Your task to perform on an android device: Show me productivity apps on the Play Store Image 0: 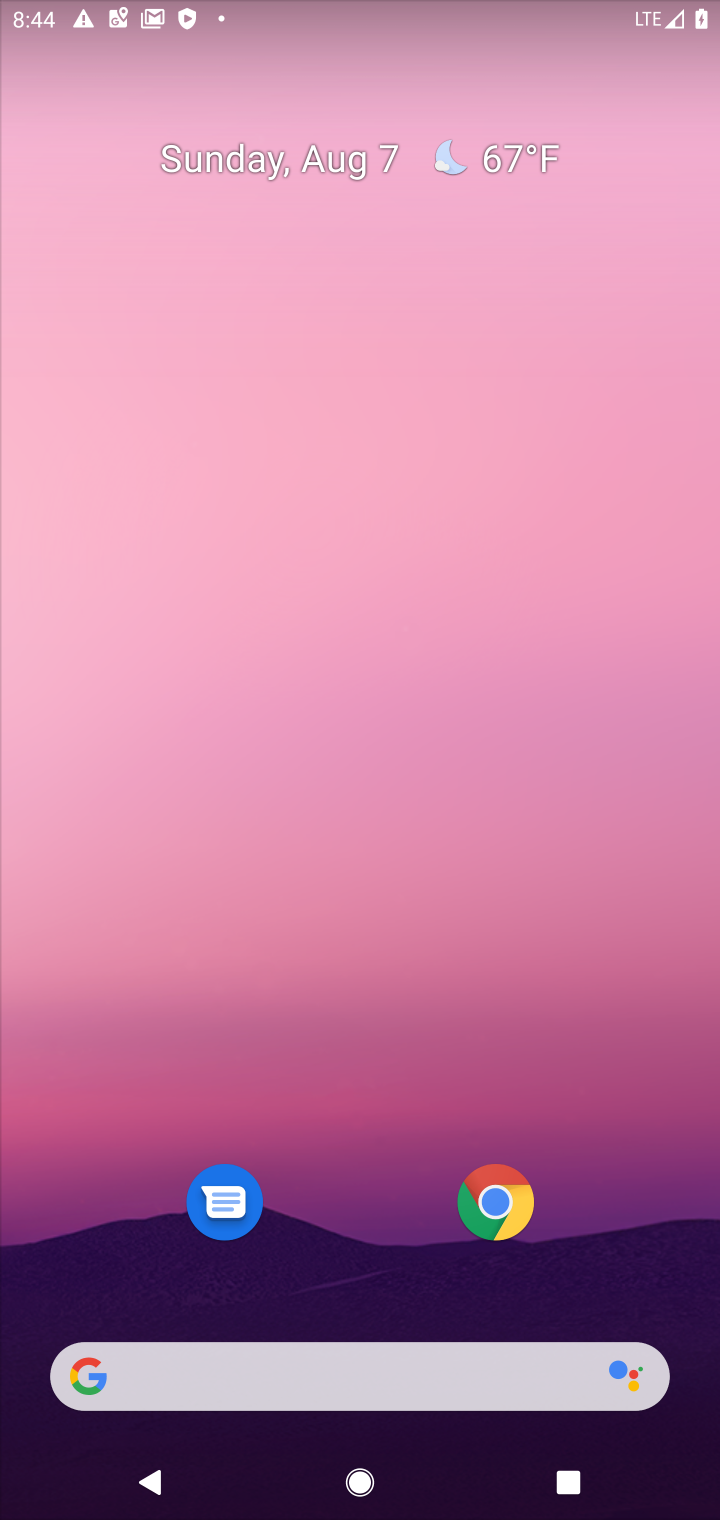
Step 0: drag from (351, 1222) to (370, 0)
Your task to perform on an android device: Show me productivity apps on the Play Store Image 1: 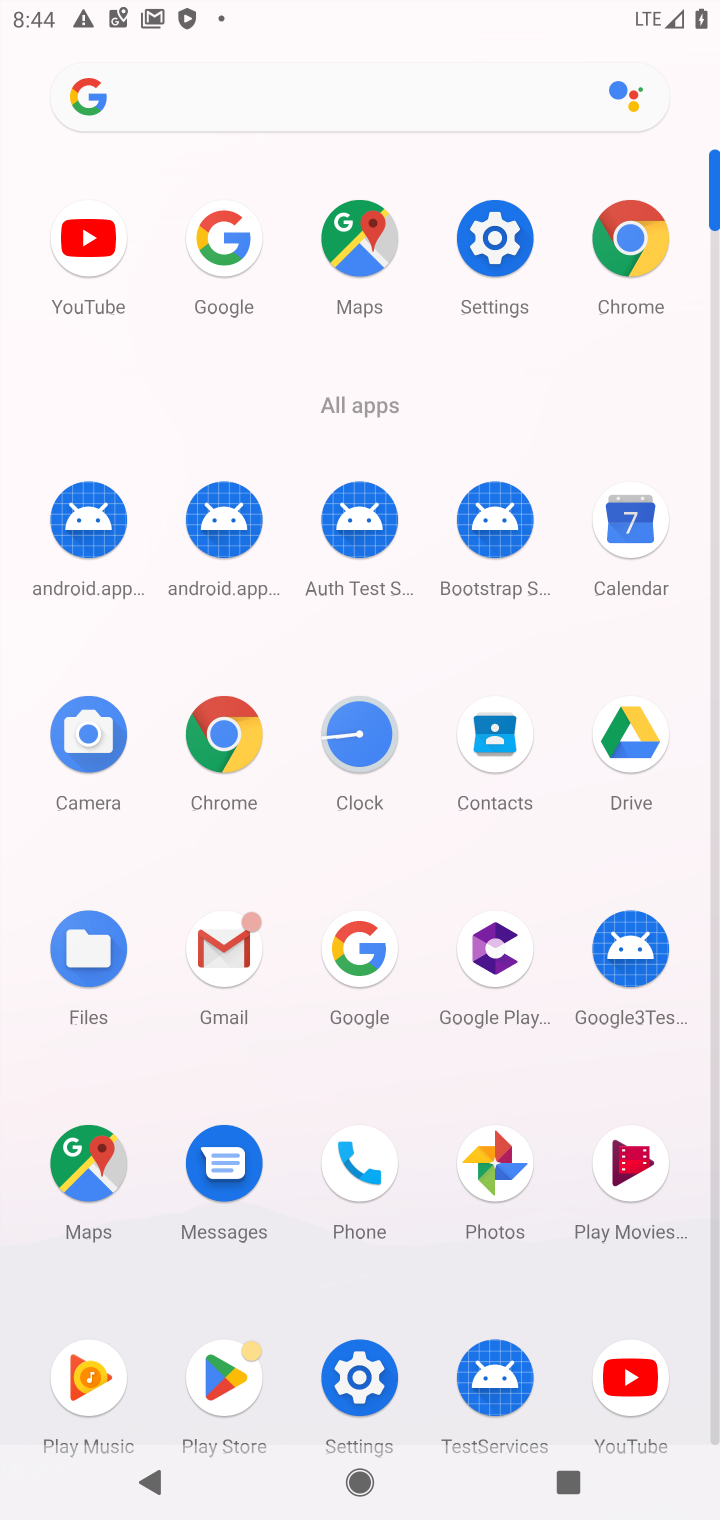
Step 1: click (190, 1369)
Your task to perform on an android device: Show me productivity apps on the Play Store Image 2: 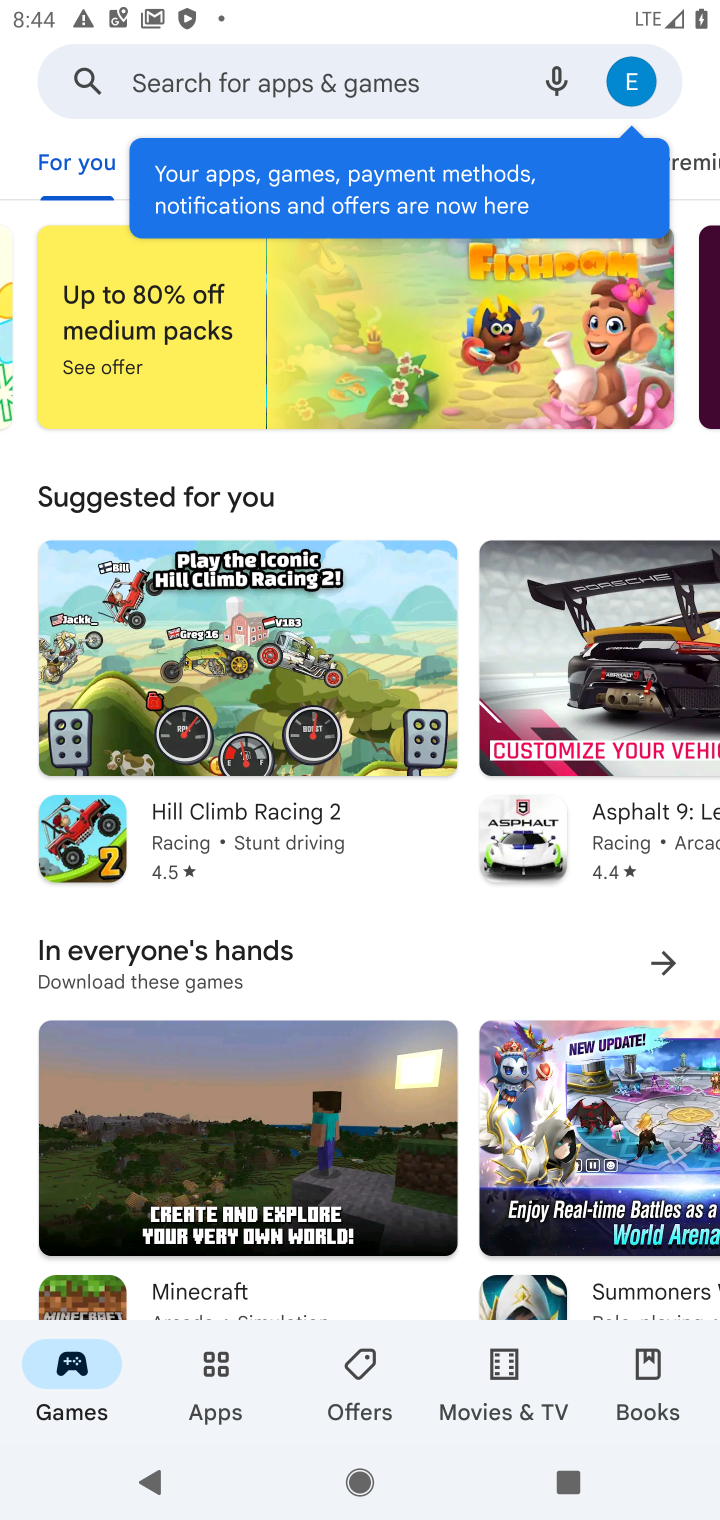
Step 2: click (205, 1392)
Your task to perform on an android device: Show me productivity apps on the Play Store Image 3: 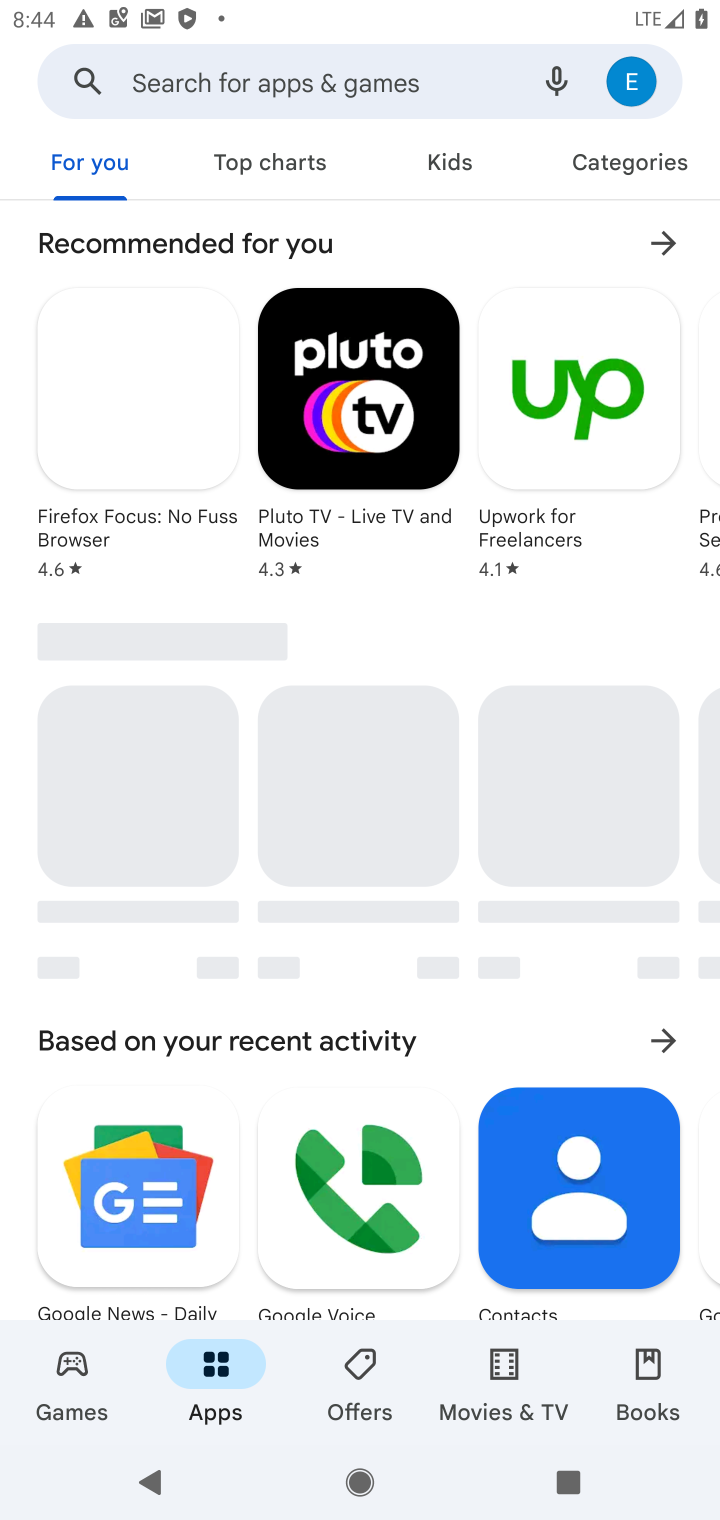
Step 3: click (640, 169)
Your task to perform on an android device: Show me productivity apps on the Play Store Image 4: 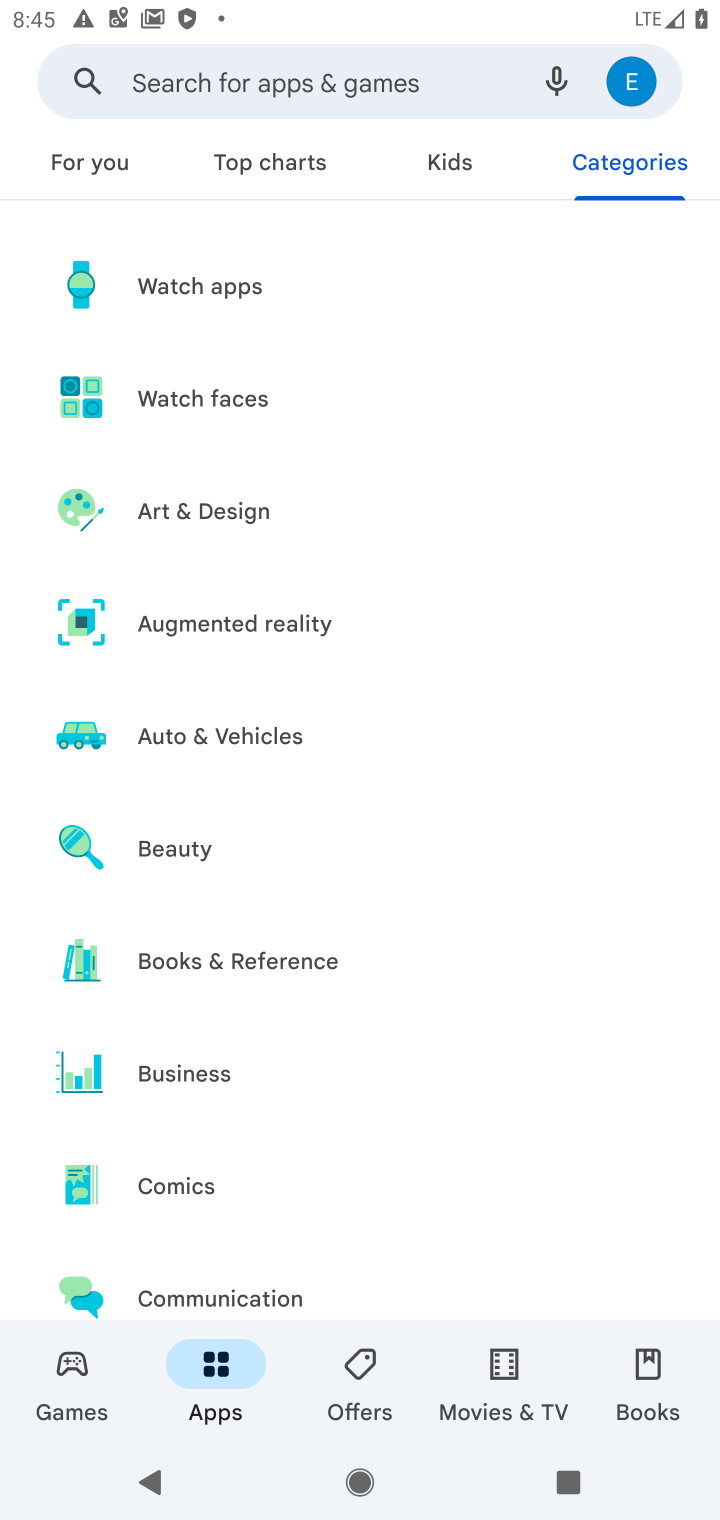
Step 4: drag from (362, 1272) to (390, 522)
Your task to perform on an android device: Show me productivity apps on the Play Store Image 5: 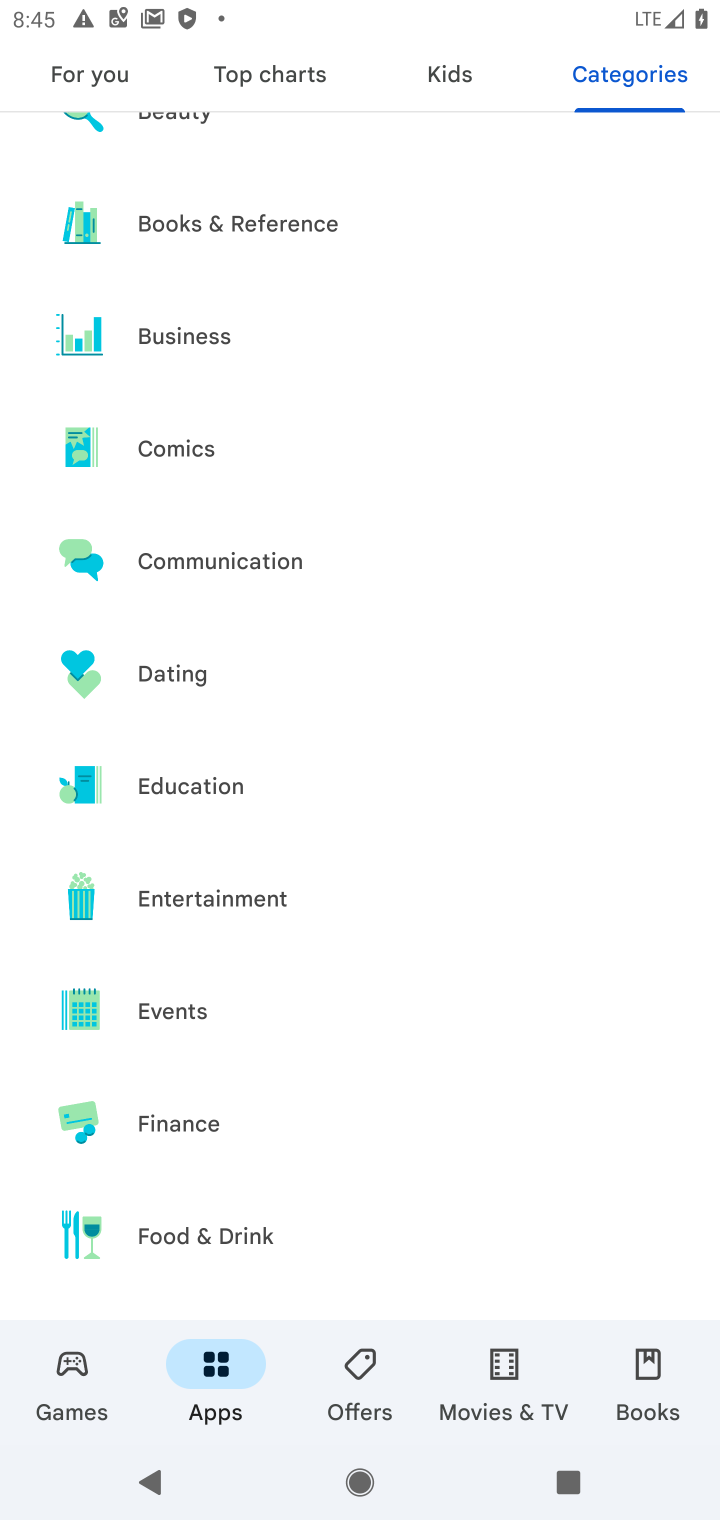
Step 5: drag from (349, 1204) to (291, 311)
Your task to perform on an android device: Show me productivity apps on the Play Store Image 6: 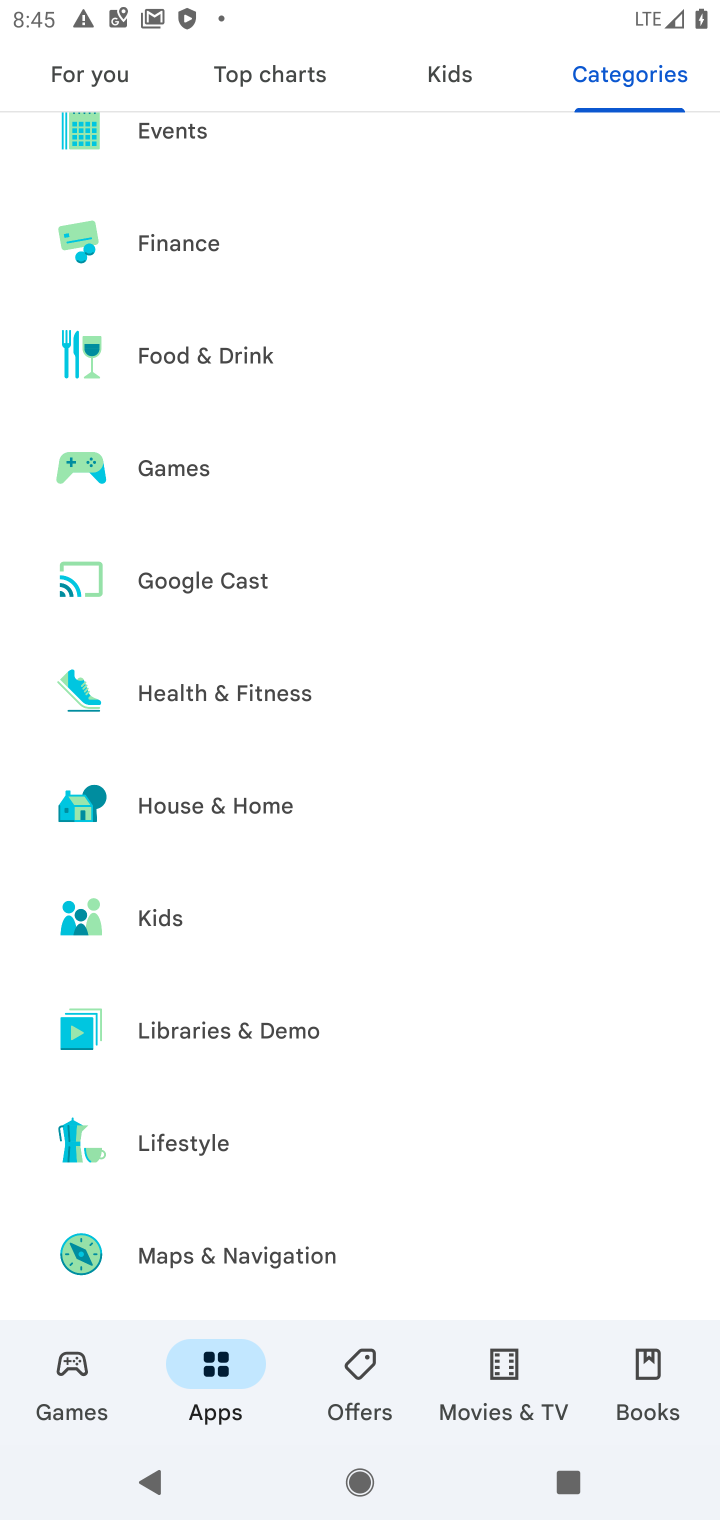
Step 6: drag from (267, 1173) to (267, 279)
Your task to perform on an android device: Show me productivity apps on the Play Store Image 7: 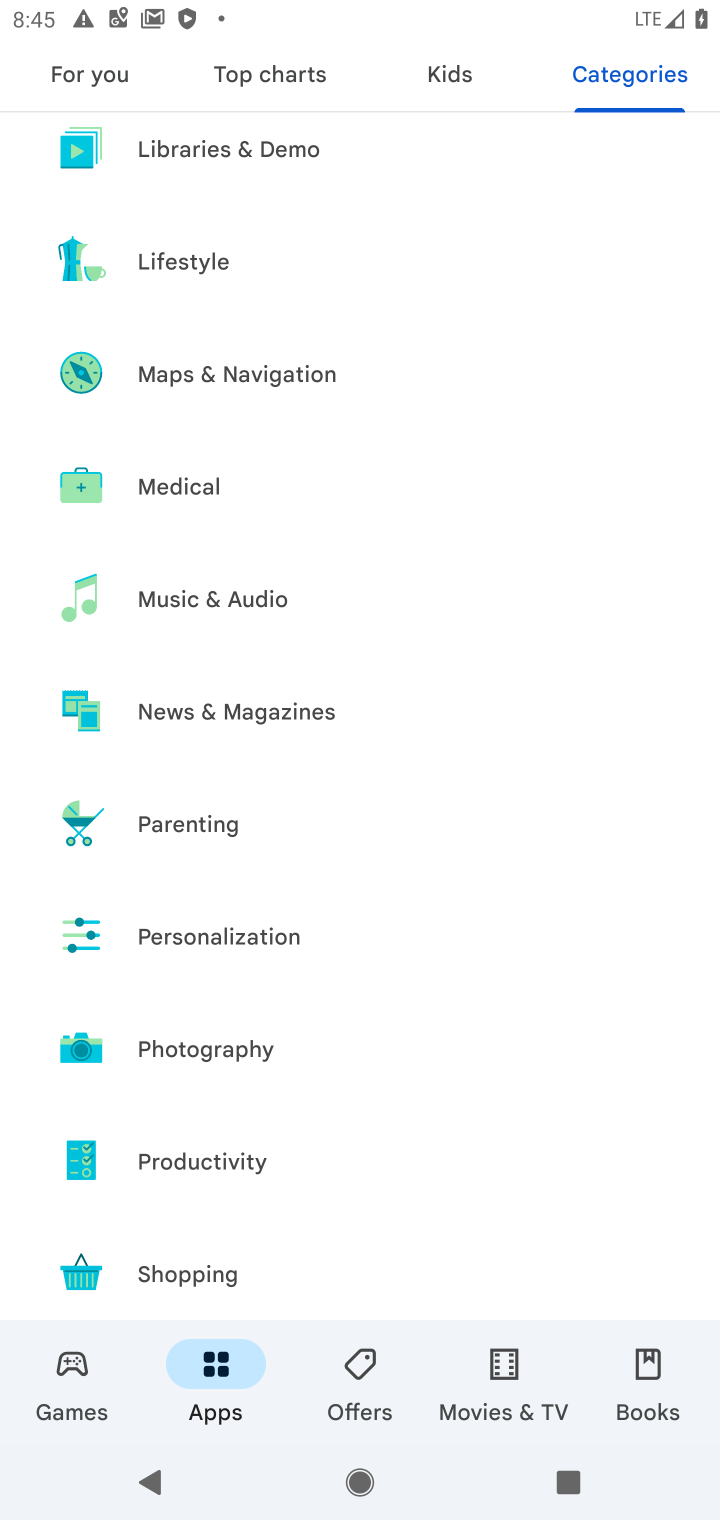
Step 7: click (251, 1172)
Your task to perform on an android device: Show me productivity apps on the Play Store Image 8: 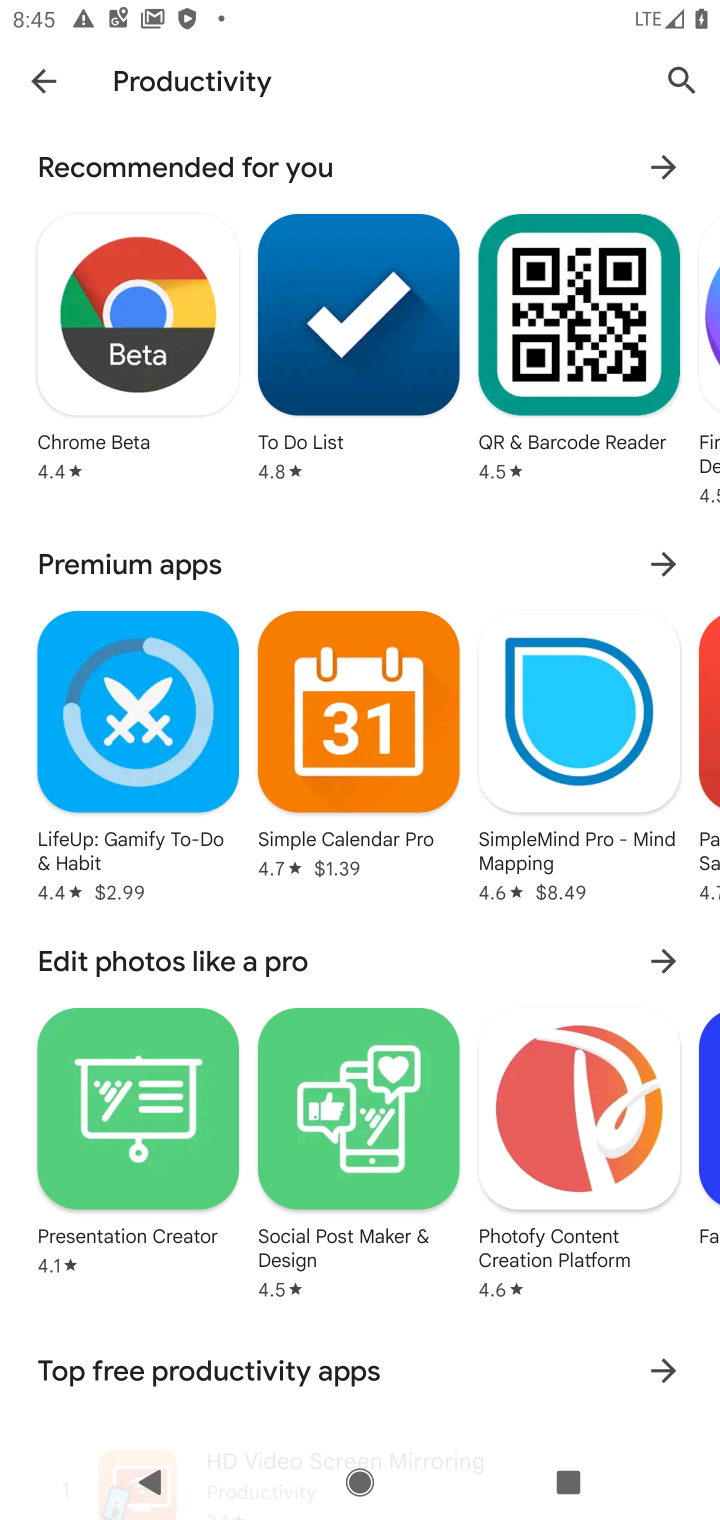
Step 8: task complete